Your task to perform on an android device: Go to Google maps Image 0: 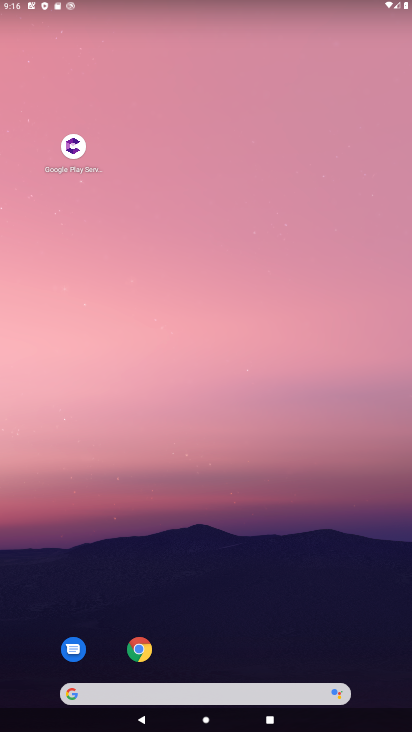
Step 0: drag from (233, 646) to (258, 281)
Your task to perform on an android device: Go to Google maps Image 1: 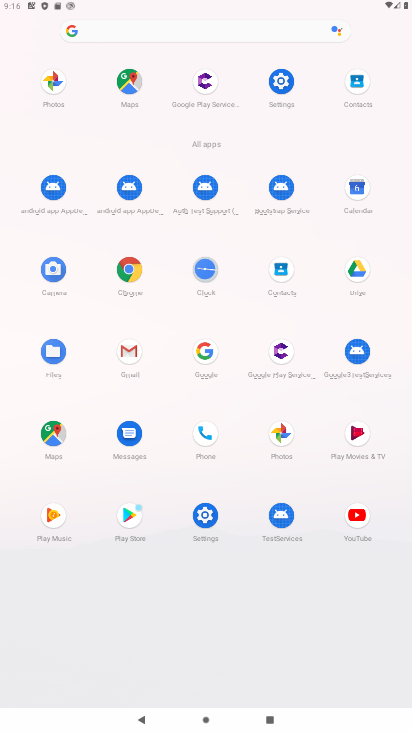
Step 1: click (130, 79)
Your task to perform on an android device: Go to Google maps Image 2: 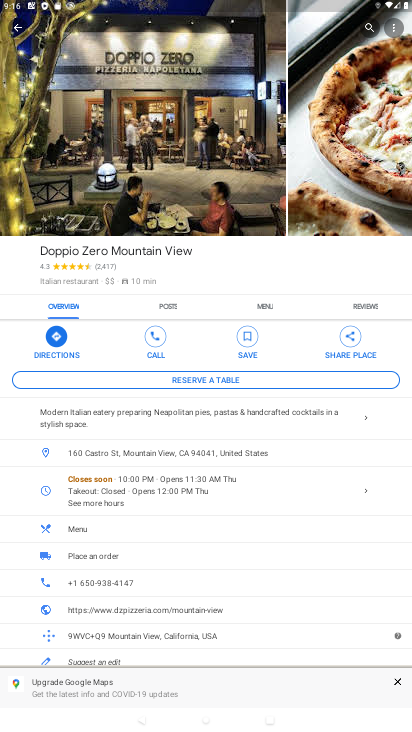
Step 2: task complete